Your task to perform on an android device: Go to location settings Image 0: 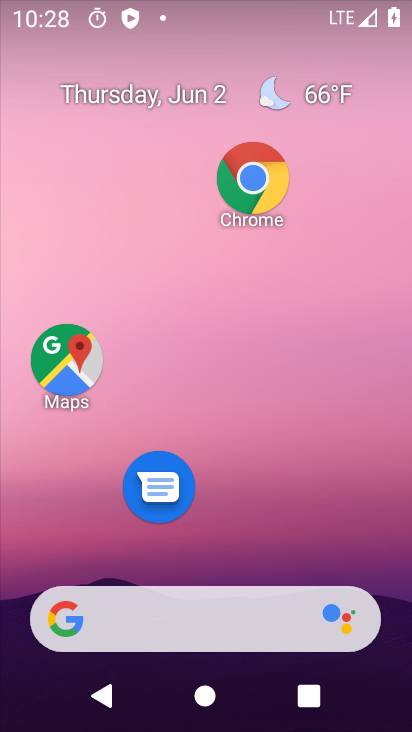
Step 0: drag from (237, 728) to (231, 84)
Your task to perform on an android device: Go to location settings Image 1: 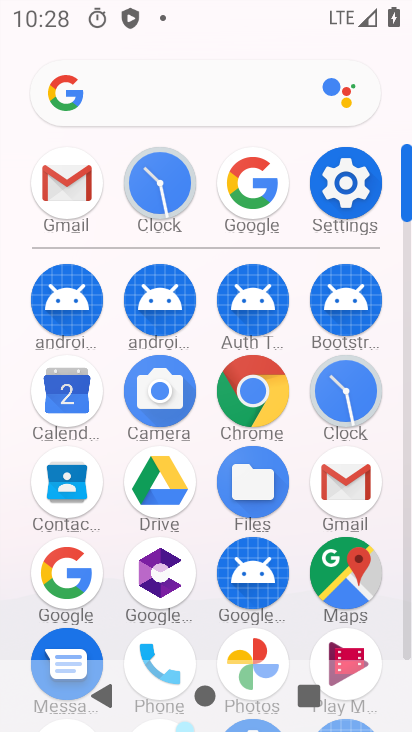
Step 1: click (346, 173)
Your task to perform on an android device: Go to location settings Image 2: 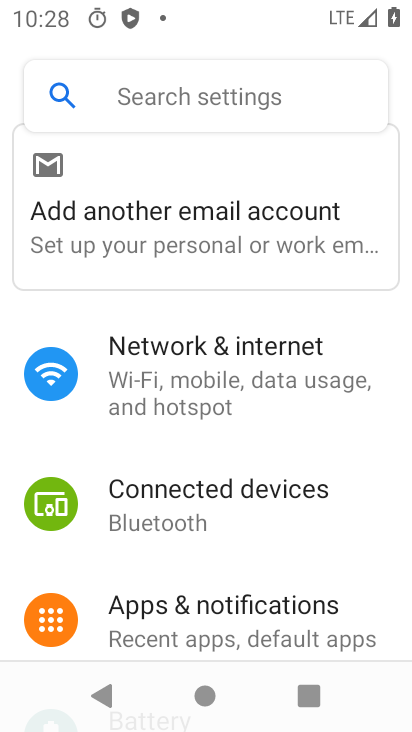
Step 2: drag from (196, 629) to (191, 229)
Your task to perform on an android device: Go to location settings Image 3: 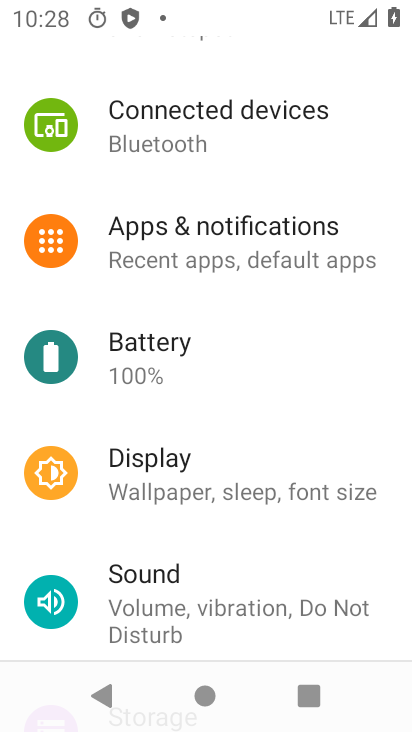
Step 3: drag from (179, 642) to (179, 223)
Your task to perform on an android device: Go to location settings Image 4: 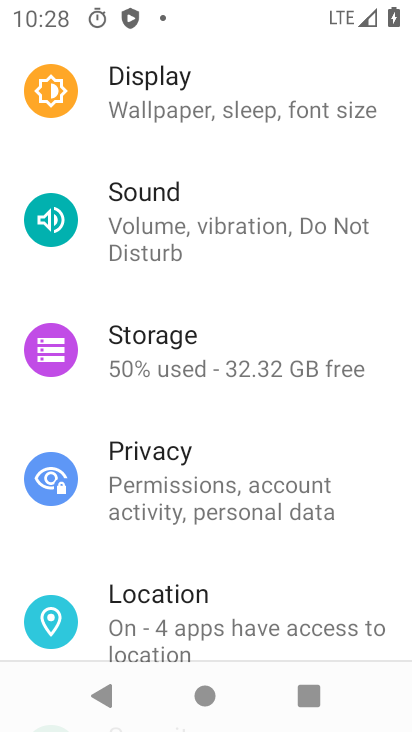
Step 4: click (178, 611)
Your task to perform on an android device: Go to location settings Image 5: 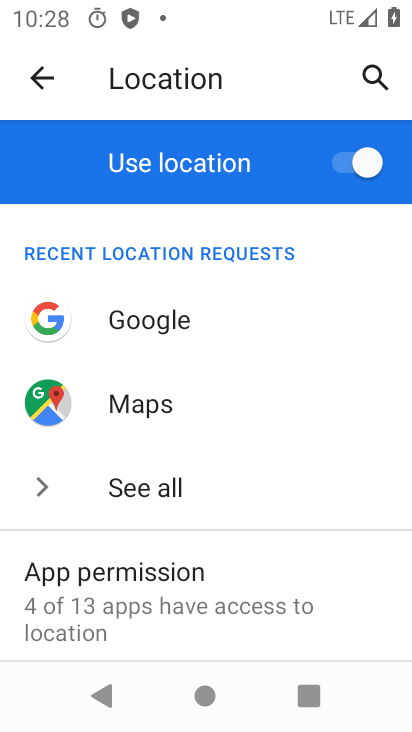
Step 5: task complete